Your task to perform on an android device: Open Amazon Image 0: 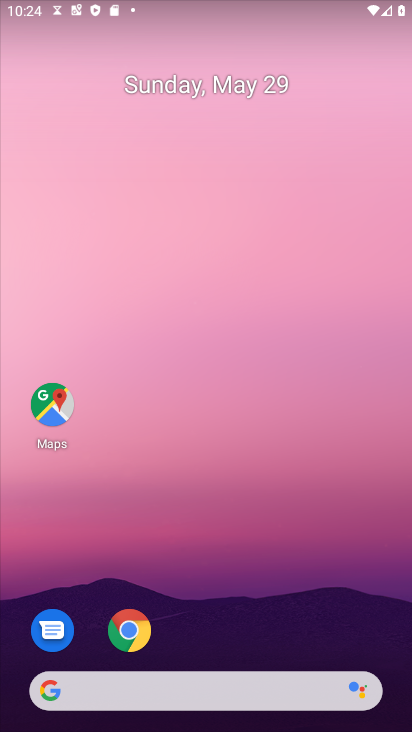
Step 0: click (127, 626)
Your task to perform on an android device: Open Amazon Image 1: 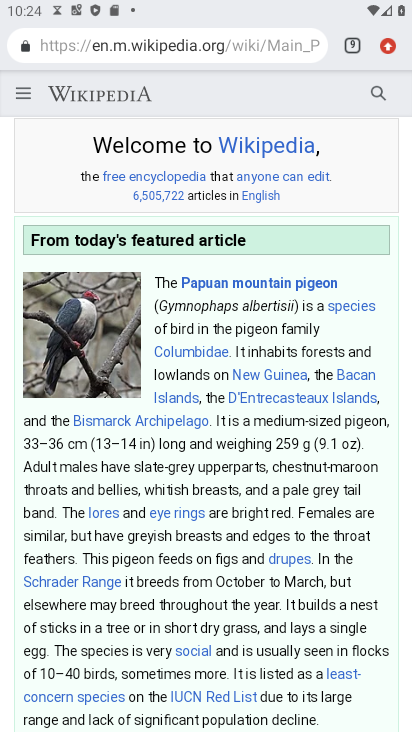
Step 1: click (356, 41)
Your task to perform on an android device: Open Amazon Image 2: 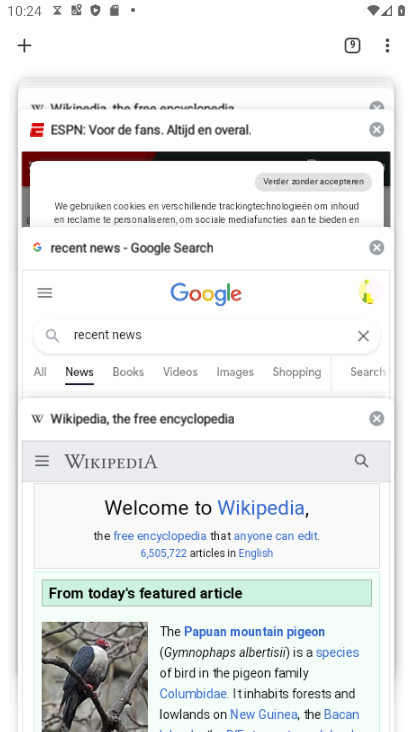
Step 2: drag from (163, 117) to (145, 409)
Your task to perform on an android device: Open Amazon Image 3: 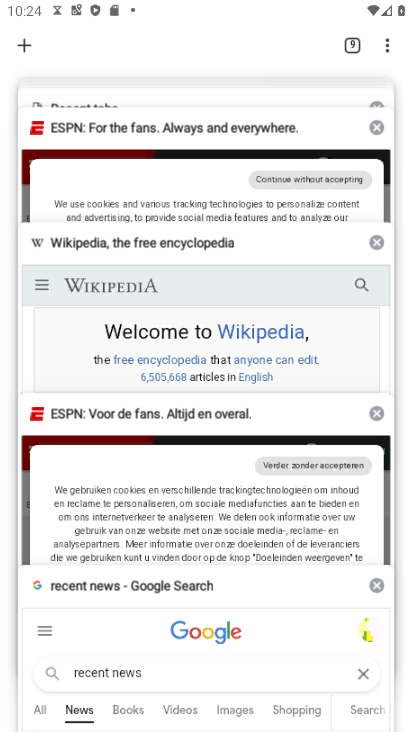
Step 3: drag from (200, 133) to (161, 379)
Your task to perform on an android device: Open Amazon Image 4: 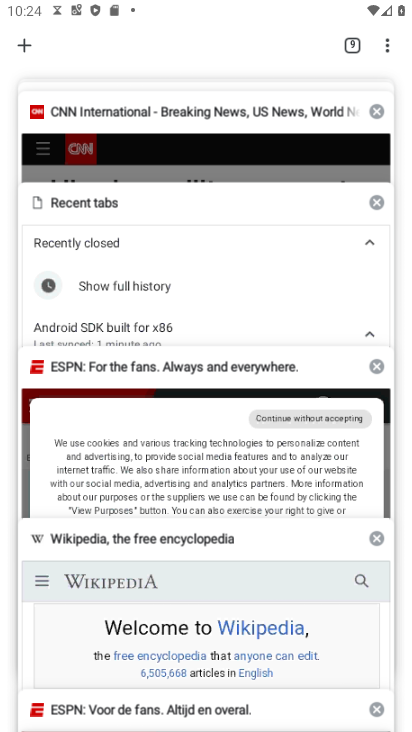
Step 4: drag from (188, 122) to (161, 365)
Your task to perform on an android device: Open Amazon Image 5: 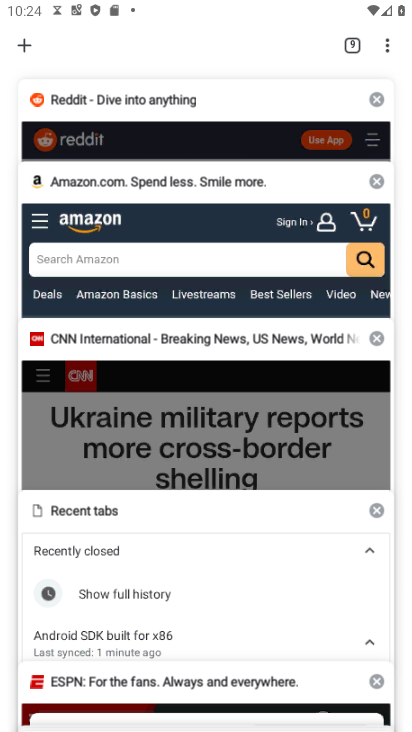
Step 5: click (164, 250)
Your task to perform on an android device: Open Amazon Image 6: 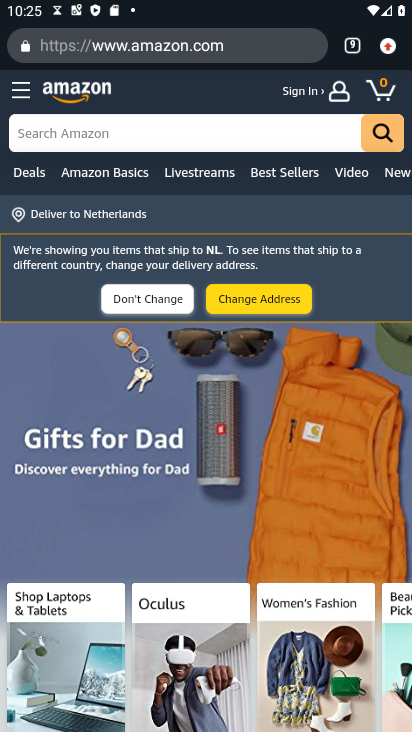
Step 6: task complete